Your task to perform on an android device: Play the last video I watched on Youtube Image 0: 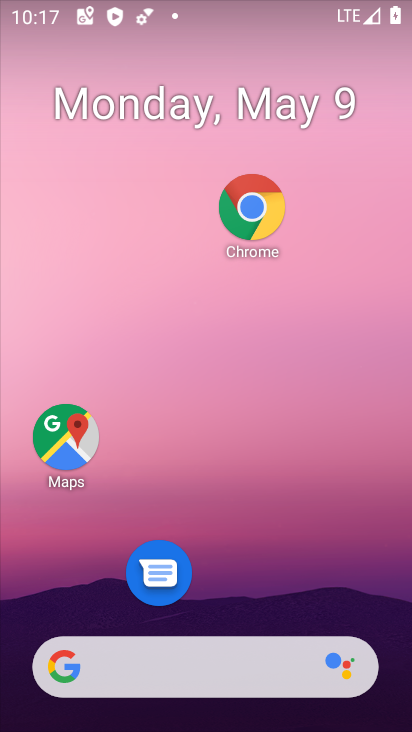
Step 0: drag from (178, 607) to (298, 102)
Your task to perform on an android device: Play the last video I watched on Youtube Image 1: 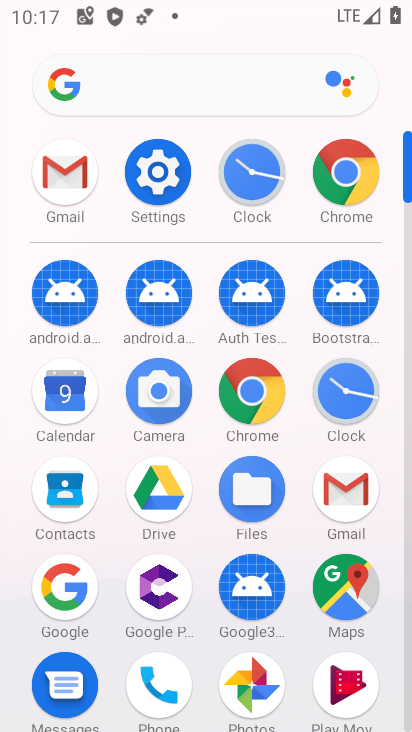
Step 1: drag from (273, 577) to (240, 71)
Your task to perform on an android device: Play the last video I watched on Youtube Image 2: 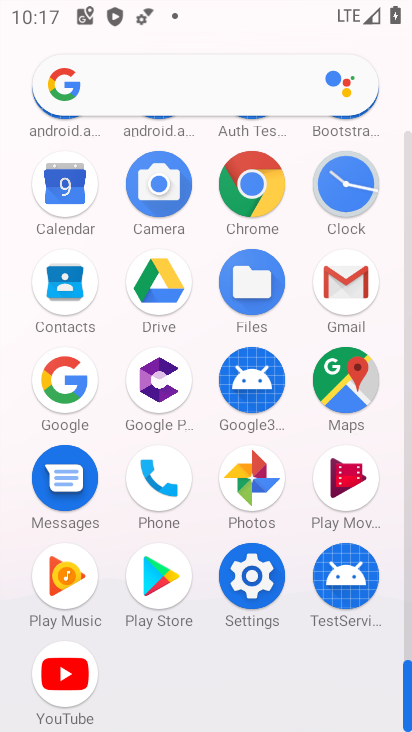
Step 2: click (80, 654)
Your task to perform on an android device: Play the last video I watched on Youtube Image 3: 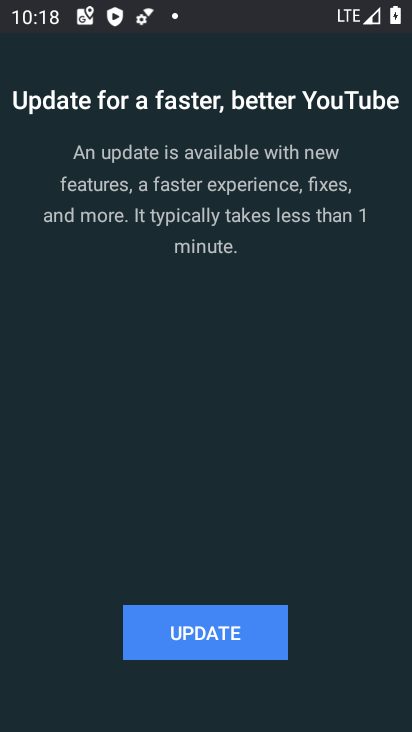
Step 3: click (264, 646)
Your task to perform on an android device: Play the last video I watched on Youtube Image 4: 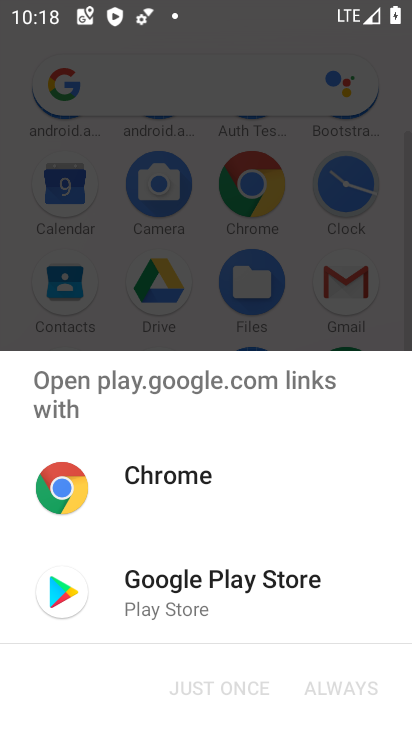
Step 4: task complete